Your task to perform on an android device: open a bookmark in the chrome app Image 0: 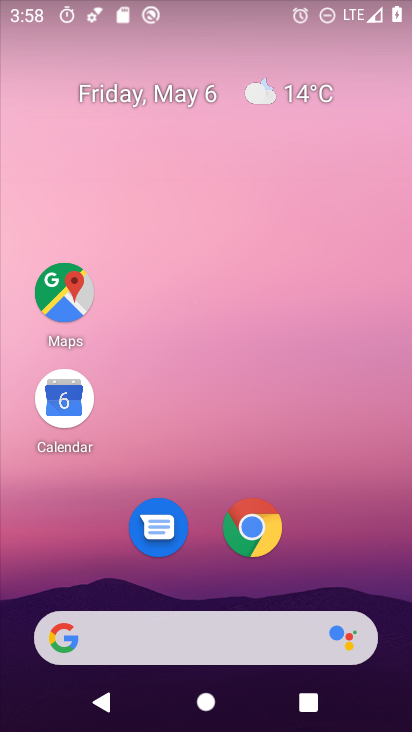
Step 0: click (253, 534)
Your task to perform on an android device: open a bookmark in the chrome app Image 1: 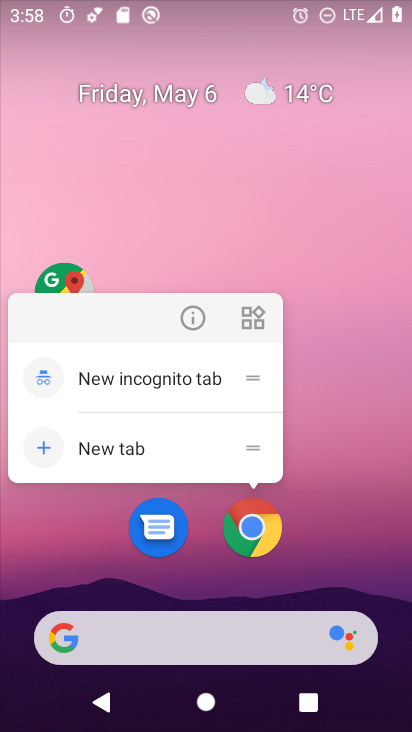
Step 1: click (257, 532)
Your task to perform on an android device: open a bookmark in the chrome app Image 2: 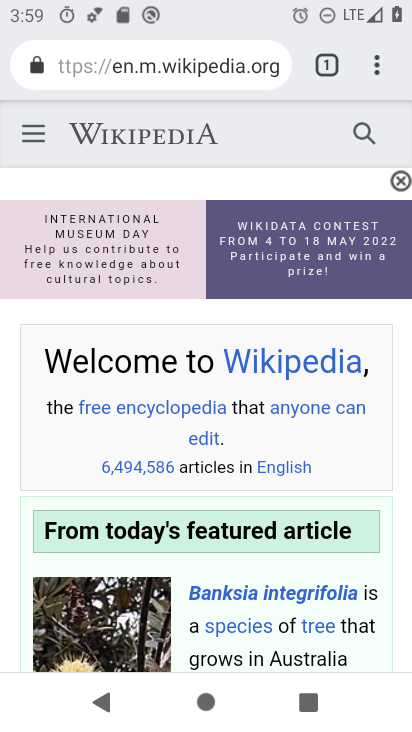
Step 2: task complete